Your task to perform on an android device: move an email to a new category in the gmail app Image 0: 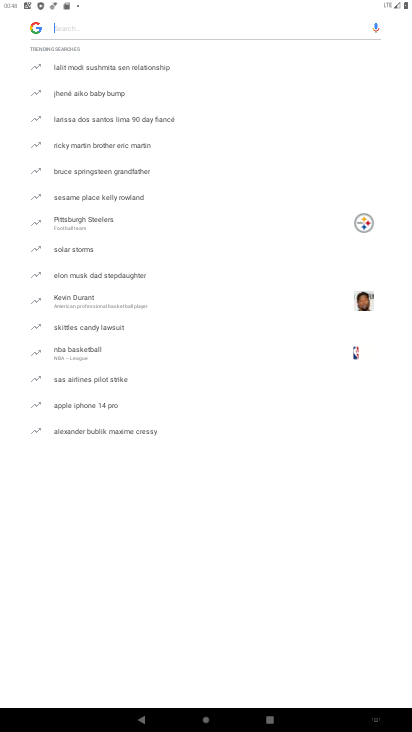
Step 0: press home button
Your task to perform on an android device: move an email to a new category in the gmail app Image 1: 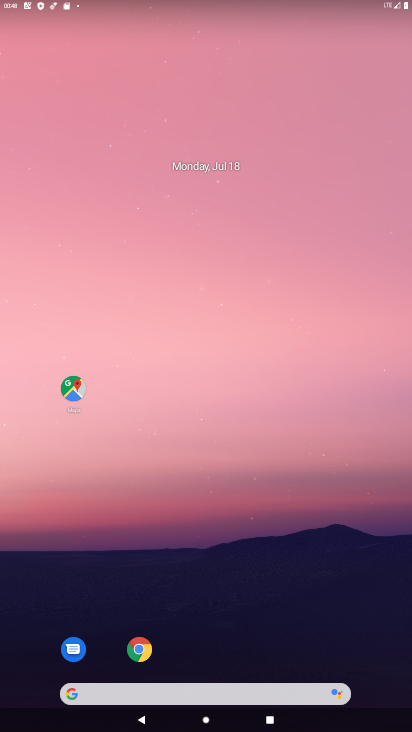
Step 1: drag from (205, 520) to (190, 167)
Your task to perform on an android device: move an email to a new category in the gmail app Image 2: 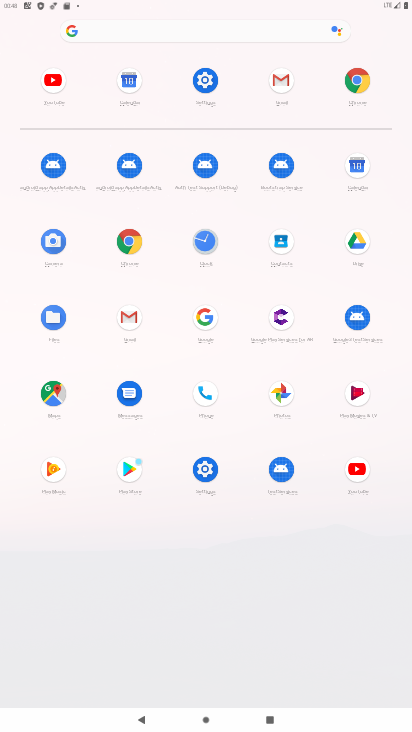
Step 2: click (279, 87)
Your task to perform on an android device: move an email to a new category in the gmail app Image 3: 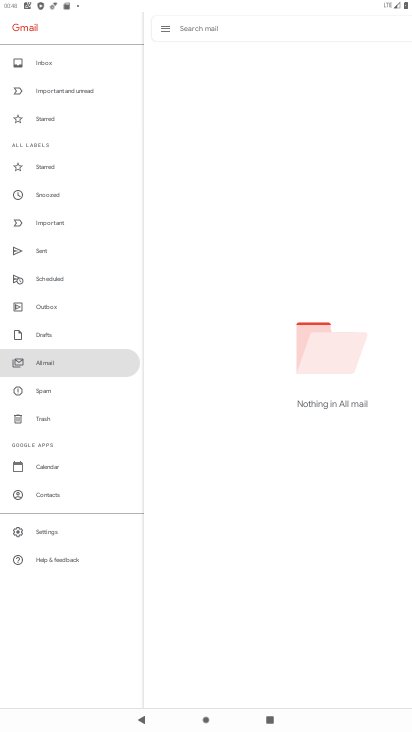
Step 3: task complete